Your task to perform on an android device: Open internet settings Image 0: 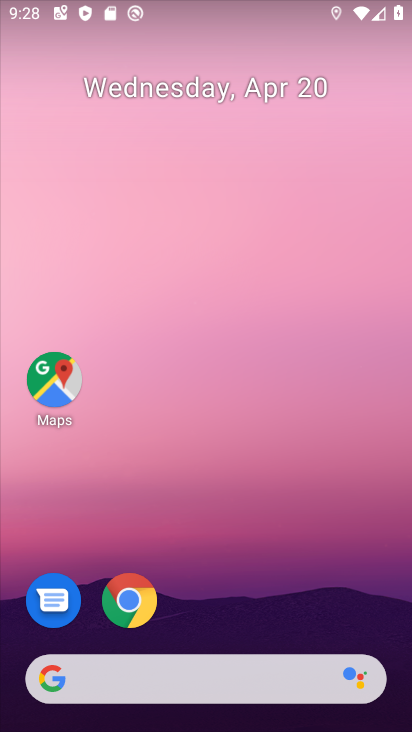
Step 0: drag from (206, 651) to (185, 4)
Your task to perform on an android device: Open internet settings Image 1: 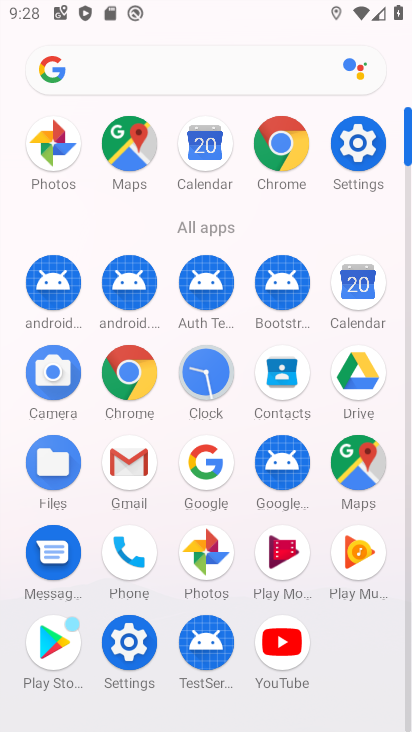
Step 1: click (143, 640)
Your task to perform on an android device: Open internet settings Image 2: 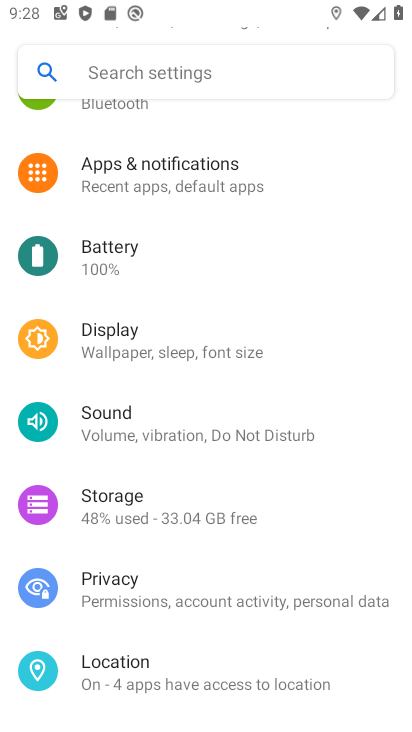
Step 2: drag from (136, 229) to (144, 566)
Your task to perform on an android device: Open internet settings Image 3: 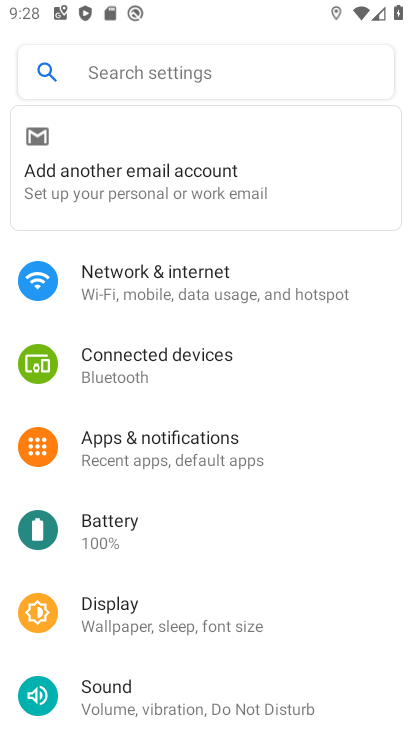
Step 3: click (125, 278)
Your task to perform on an android device: Open internet settings Image 4: 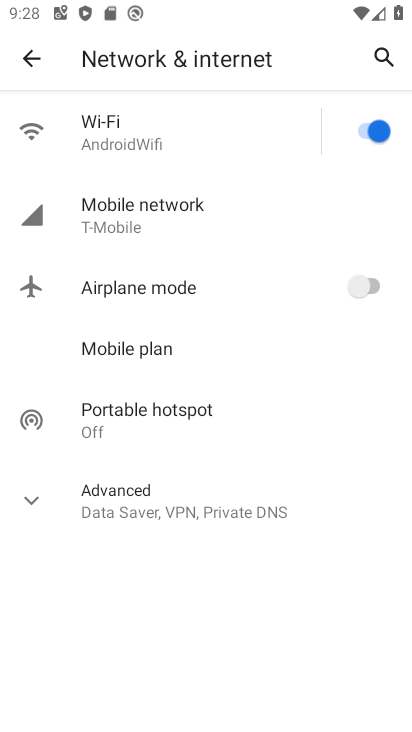
Step 4: click (129, 231)
Your task to perform on an android device: Open internet settings Image 5: 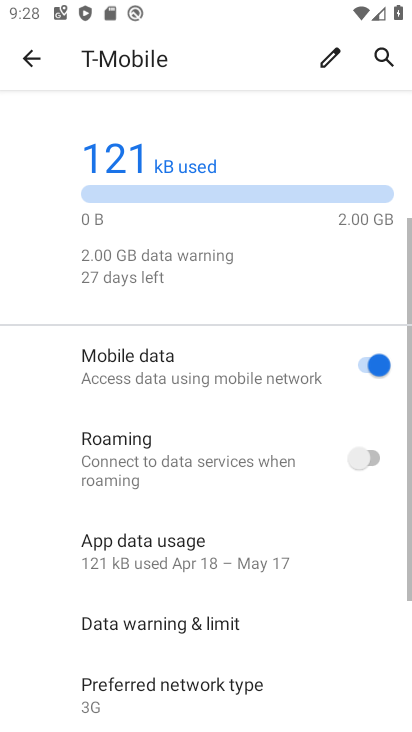
Step 5: drag from (187, 536) to (173, 92)
Your task to perform on an android device: Open internet settings Image 6: 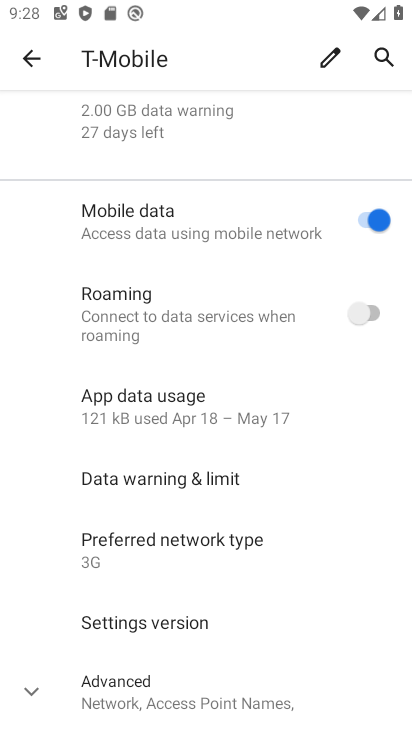
Step 6: click (181, 672)
Your task to perform on an android device: Open internet settings Image 7: 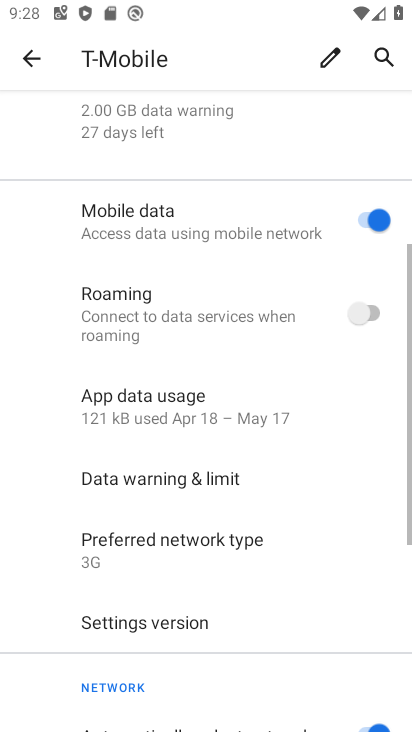
Step 7: task complete